Your task to perform on an android device: Toggle the flashlight Image 0: 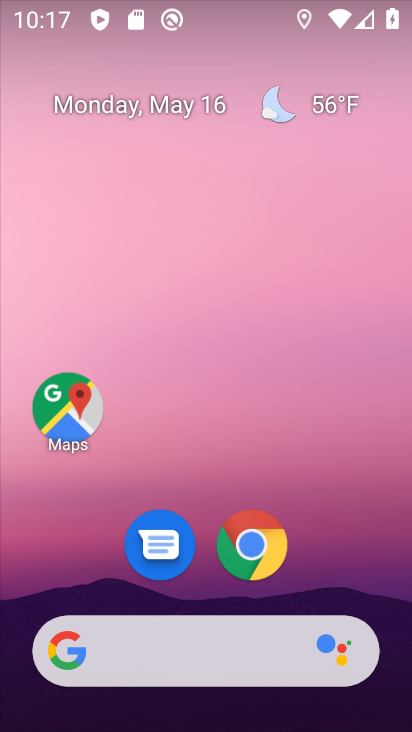
Step 0: drag from (186, 588) to (98, 82)
Your task to perform on an android device: Toggle the flashlight Image 1: 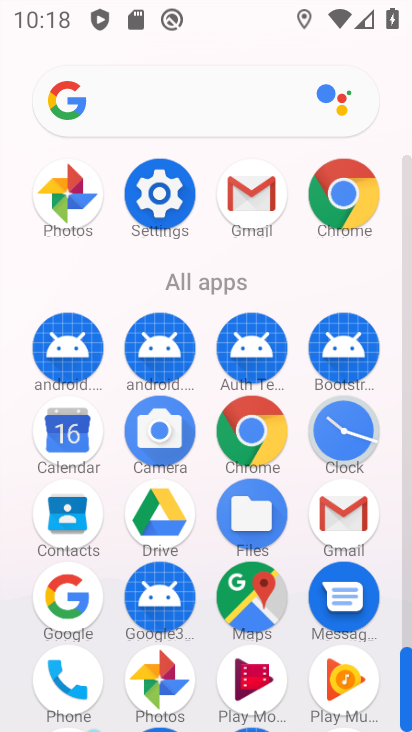
Step 1: click (157, 201)
Your task to perform on an android device: Toggle the flashlight Image 2: 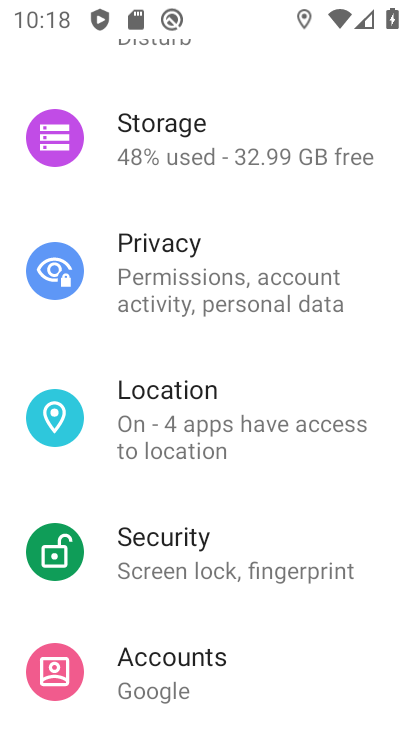
Step 2: task complete